Your task to perform on an android device: Go to internet settings Image 0: 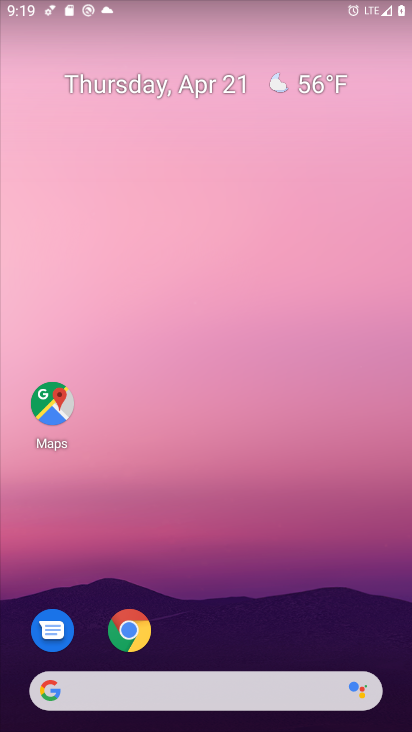
Step 0: drag from (201, 646) to (247, 67)
Your task to perform on an android device: Go to internet settings Image 1: 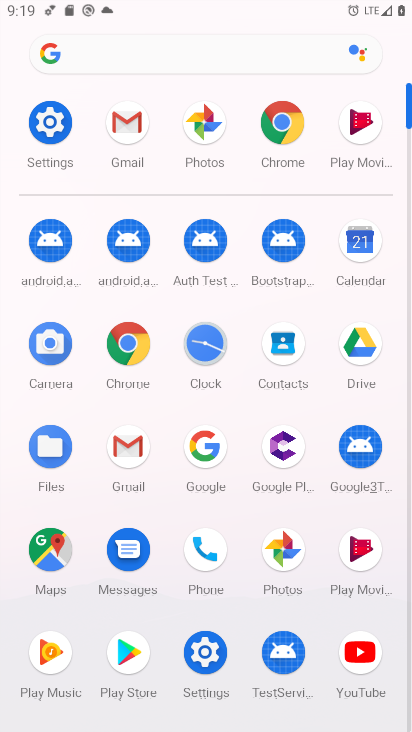
Step 1: click (49, 153)
Your task to perform on an android device: Go to internet settings Image 2: 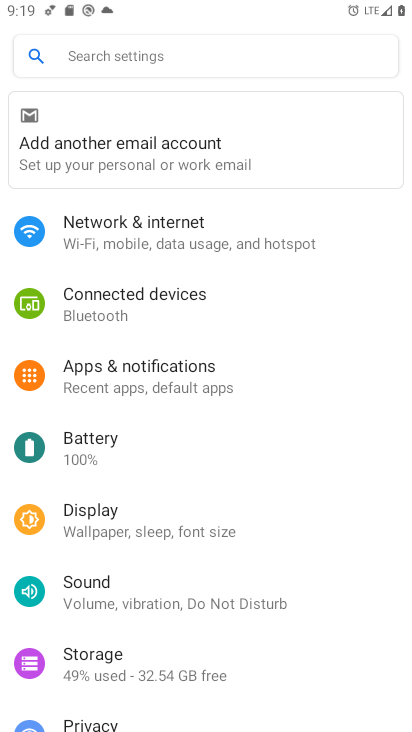
Step 2: click (167, 219)
Your task to perform on an android device: Go to internet settings Image 3: 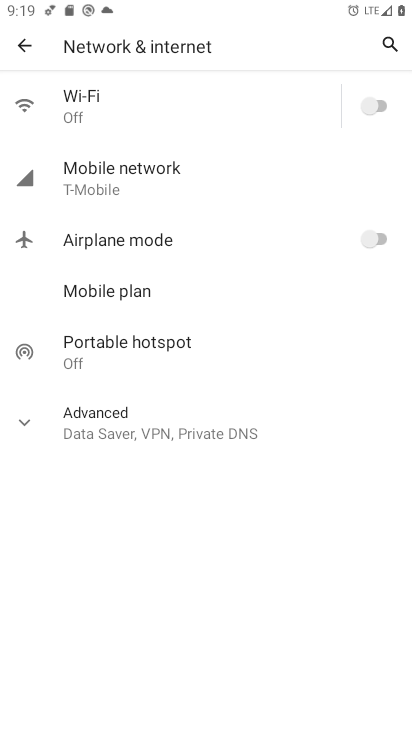
Step 3: task complete